Your task to perform on an android device: star an email in the gmail app Image 0: 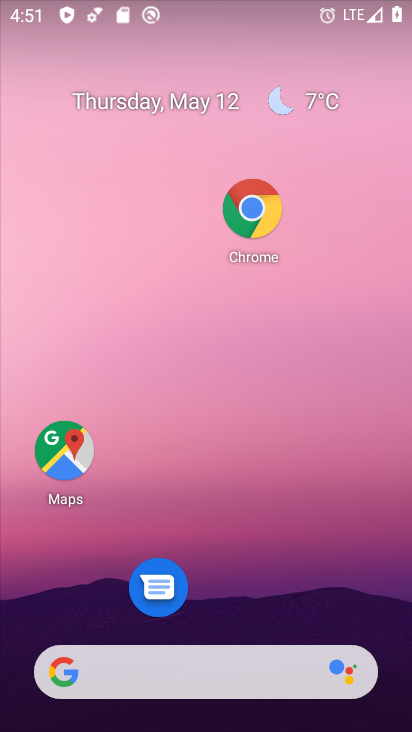
Step 0: drag from (255, 591) to (234, 125)
Your task to perform on an android device: star an email in the gmail app Image 1: 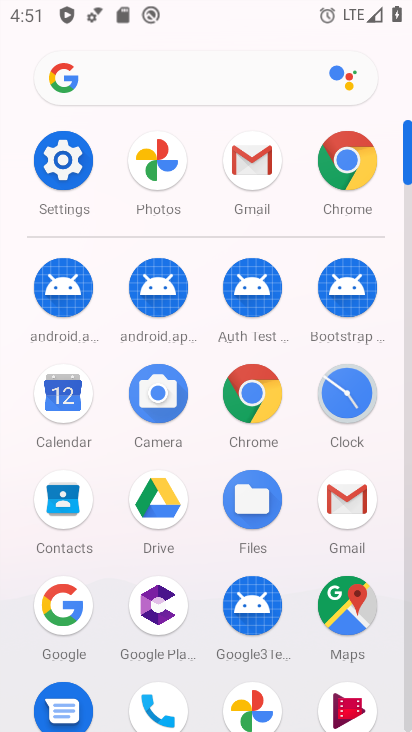
Step 1: click (248, 191)
Your task to perform on an android device: star an email in the gmail app Image 2: 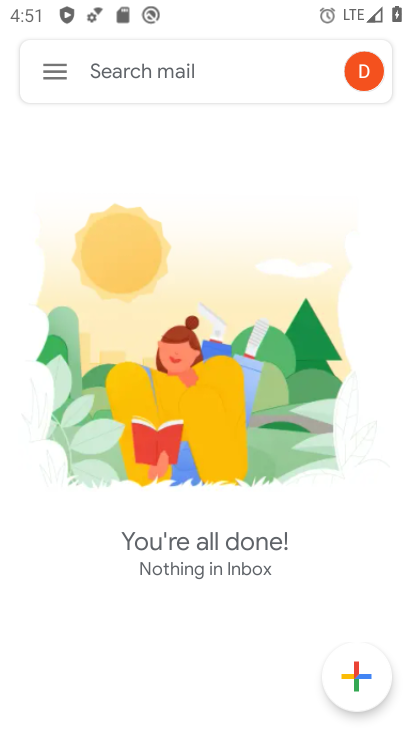
Step 2: click (59, 78)
Your task to perform on an android device: star an email in the gmail app Image 3: 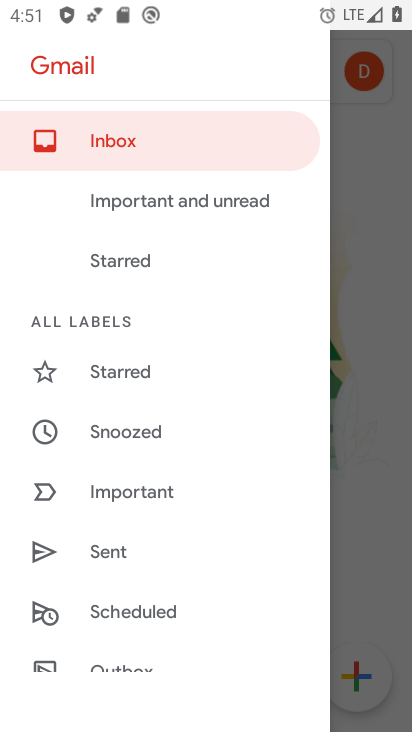
Step 3: drag from (137, 605) to (164, 405)
Your task to perform on an android device: star an email in the gmail app Image 4: 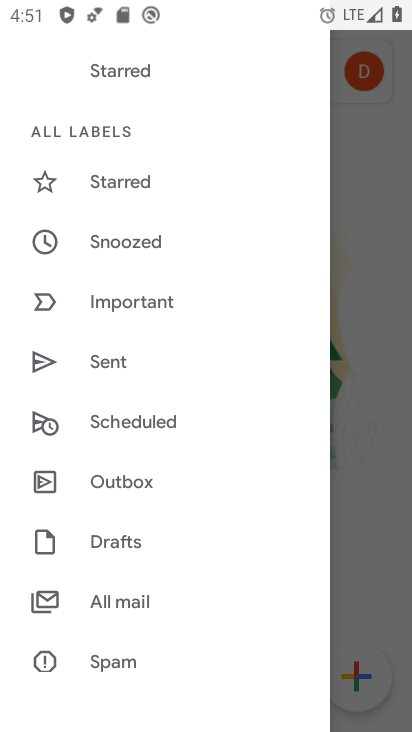
Step 4: click (113, 599)
Your task to perform on an android device: star an email in the gmail app Image 5: 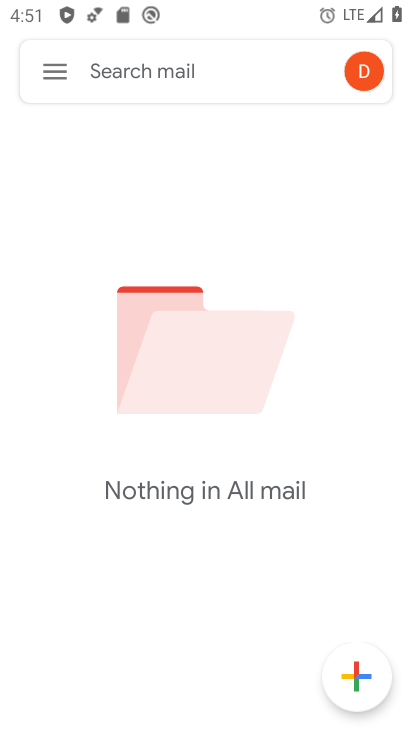
Step 5: task complete